Your task to perform on an android device: Do I have any events this weekend? Image 0: 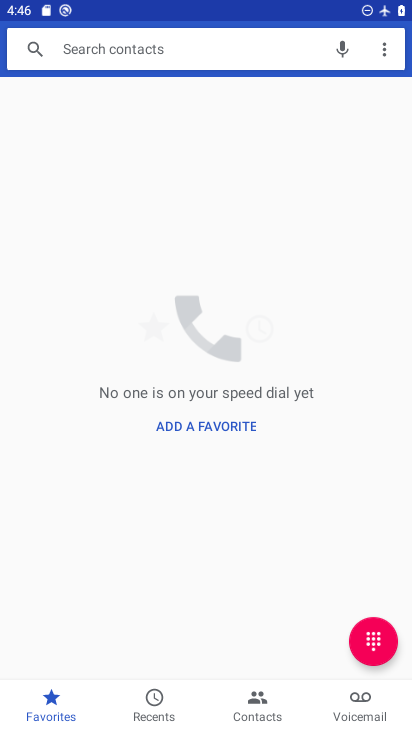
Step 0: press home button
Your task to perform on an android device: Do I have any events this weekend? Image 1: 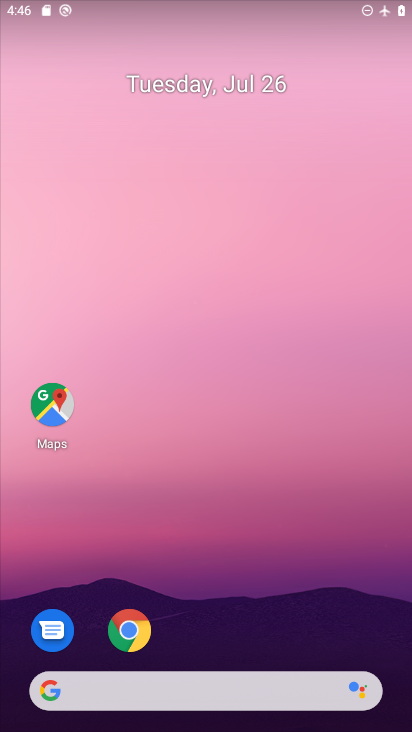
Step 1: drag from (262, 615) to (206, 150)
Your task to perform on an android device: Do I have any events this weekend? Image 2: 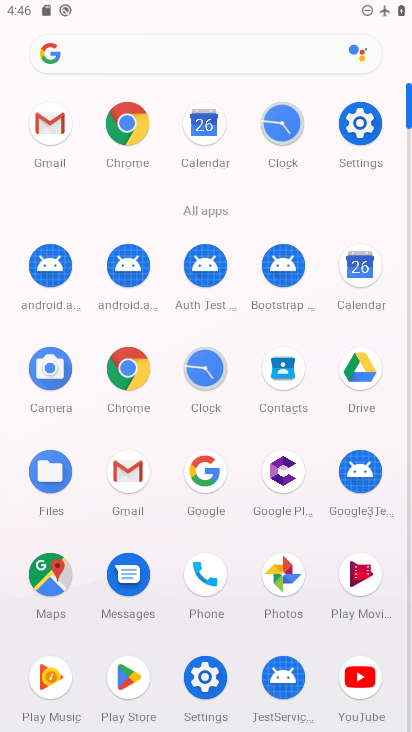
Step 2: click (361, 270)
Your task to perform on an android device: Do I have any events this weekend? Image 3: 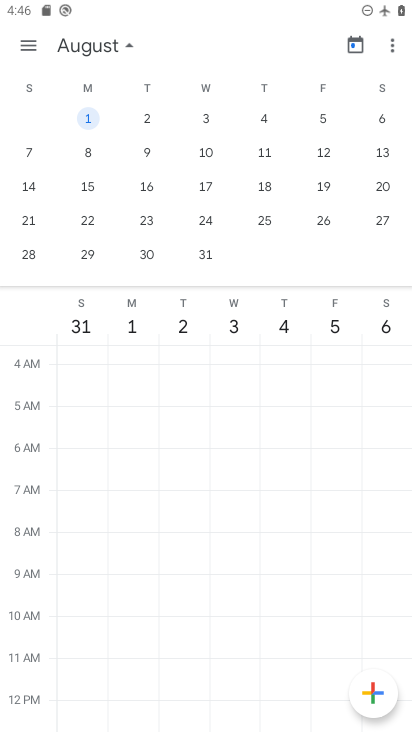
Step 3: click (26, 40)
Your task to perform on an android device: Do I have any events this weekend? Image 4: 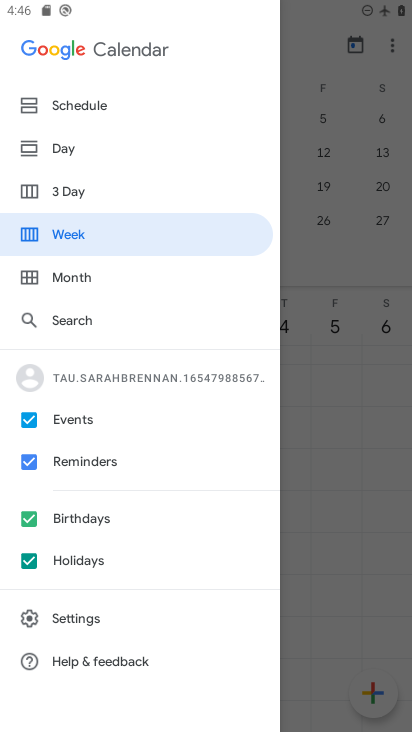
Step 4: click (30, 558)
Your task to perform on an android device: Do I have any events this weekend? Image 5: 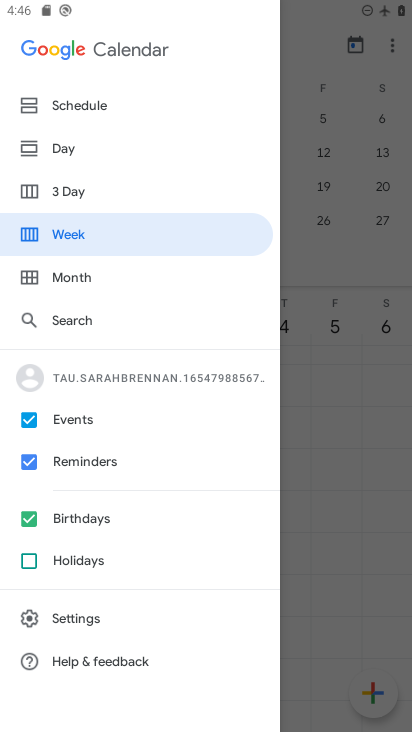
Step 5: click (25, 518)
Your task to perform on an android device: Do I have any events this weekend? Image 6: 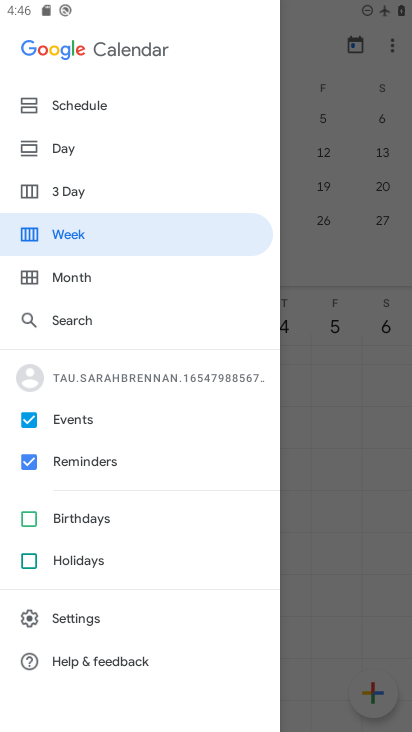
Step 6: click (24, 464)
Your task to perform on an android device: Do I have any events this weekend? Image 7: 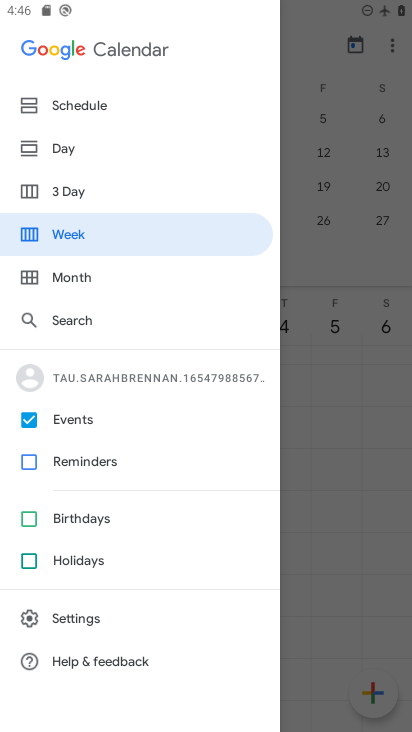
Step 7: click (84, 199)
Your task to perform on an android device: Do I have any events this weekend? Image 8: 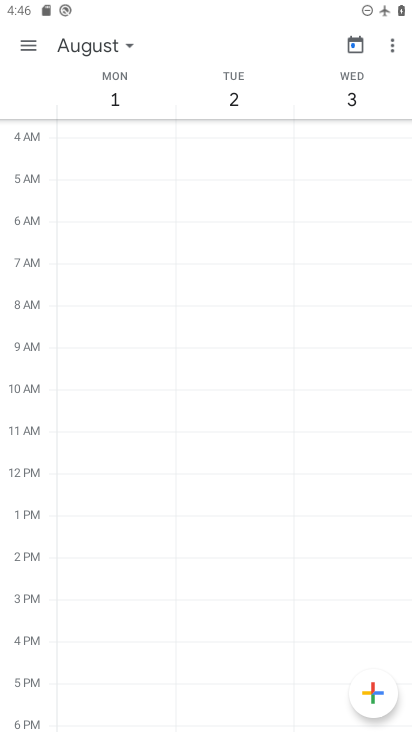
Step 8: task complete